Your task to perform on an android device: Do I have any events this weekend? Image 0: 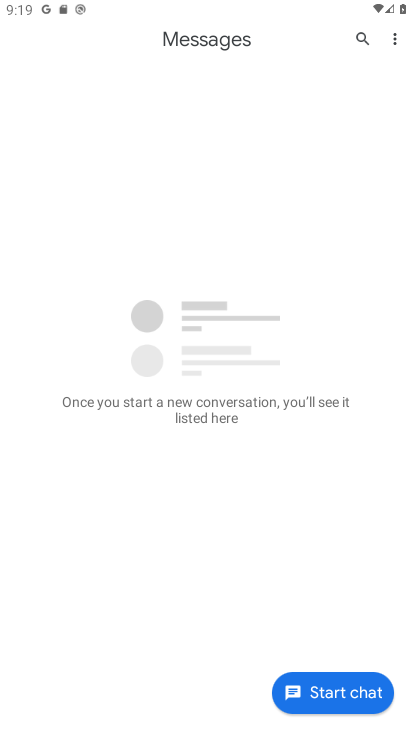
Step 0: drag from (333, 690) to (293, 81)
Your task to perform on an android device: Do I have any events this weekend? Image 1: 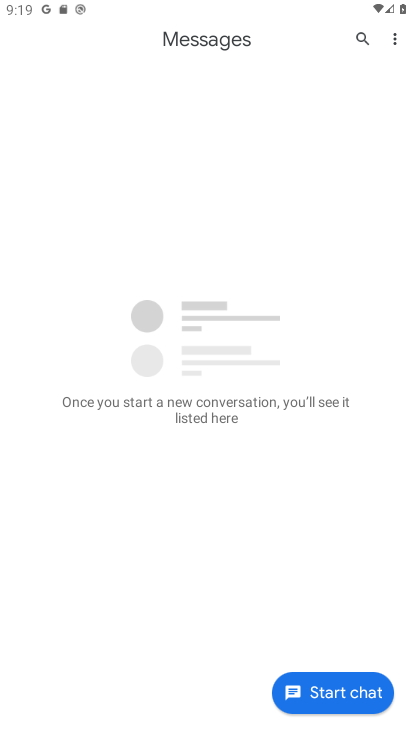
Step 1: press back button
Your task to perform on an android device: Do I have any events this weekend? Image 2: 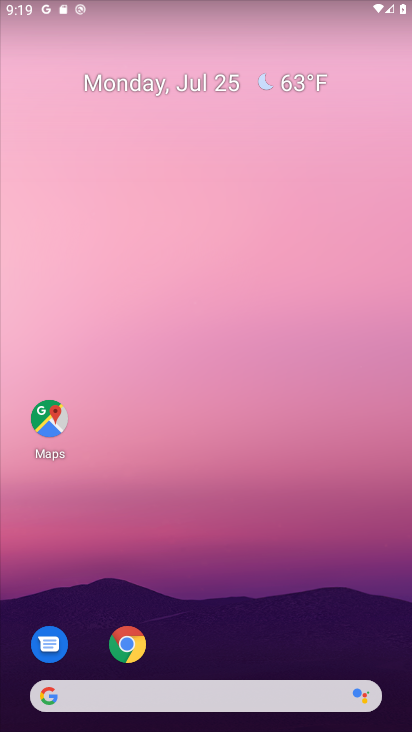
Step 2: drag from (233, 283) to (212, 126)
Your task to perform on an android device: Do I have any events this weekend? Image 3: 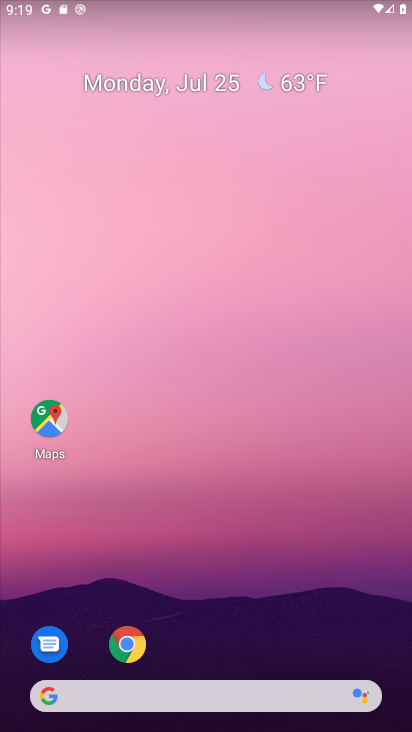
Step 3: drag from (222, 548) to (250, 63)
Your task to perform on an android device: Do I have any events this weekend? Image 4: 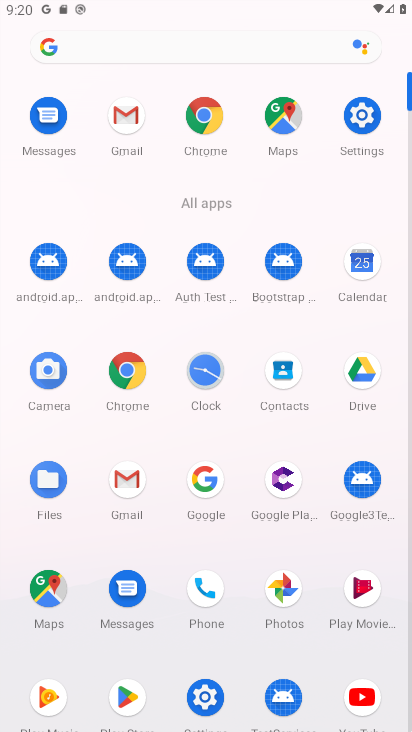
Step 4: click (356, 262)
Your task to perform on an android device: Do I have any events this weekend? Image 5: 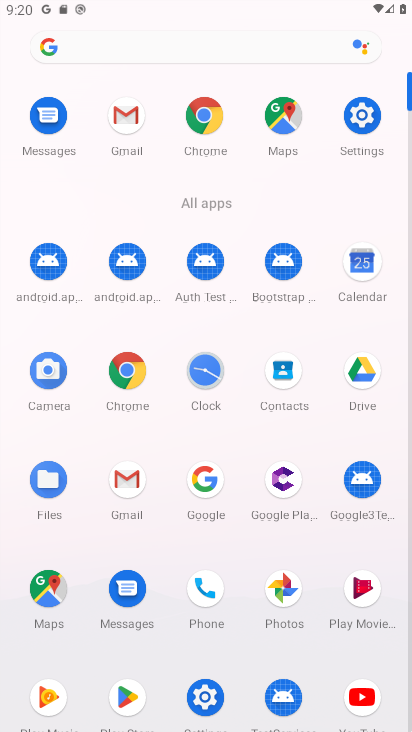
Step 5: click (355, 261)
Your task to perform on an android device: Do I have any events this weekend? Image 6: 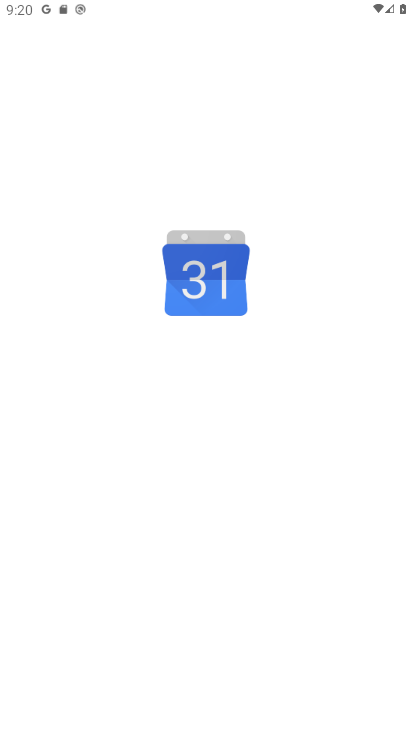
Step 6: click (346, 264)
Your task to perform on an android device: Do I have any events this weekend? Image 7: 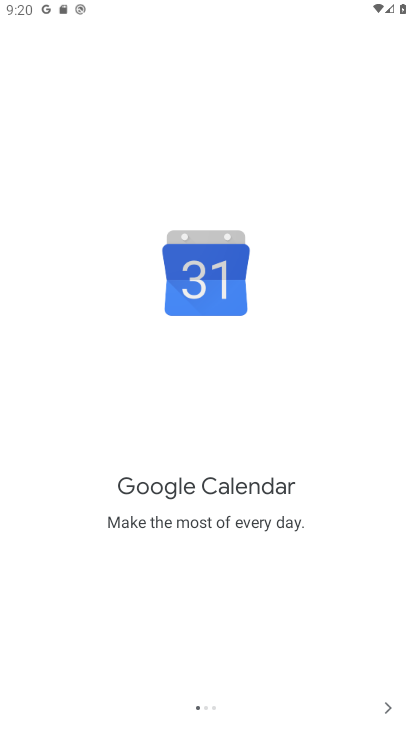
Step 7: click (398, 700)
Your task to perform on an android device: Do I have any events this weekend? Image 8: 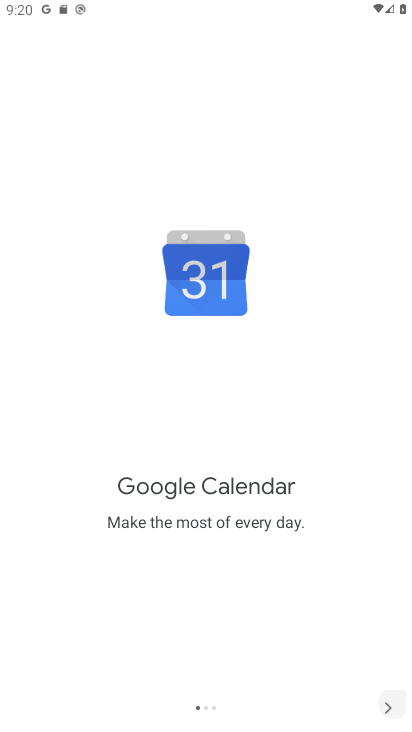
Step 8: click (390, 703)
Your task to perform on an android device: Do I have any events this weekend? Image 9: 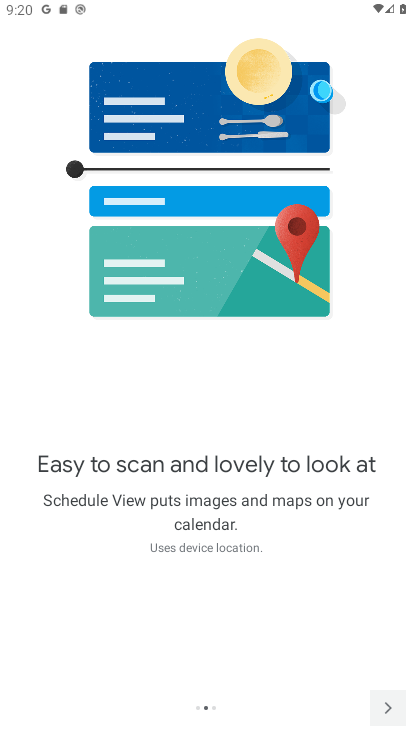
Step 9: click (387, 709)
Your task to perform on an android device: Do I have any events this weekend? Image 10: 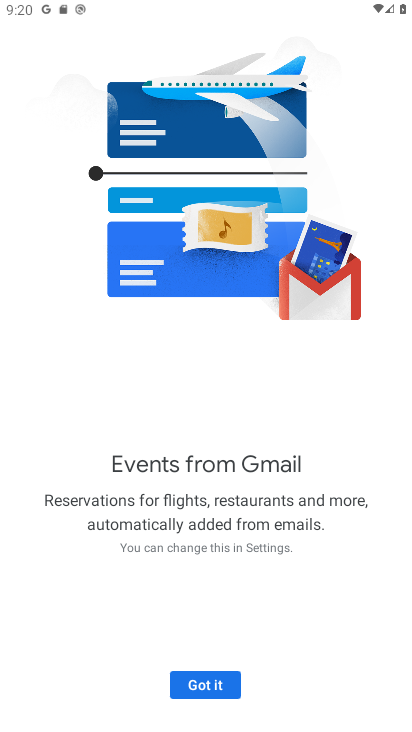
Step 10: click (210, 687)
Your task to perform on an android device: Do I have any events this weekend? Image 11: 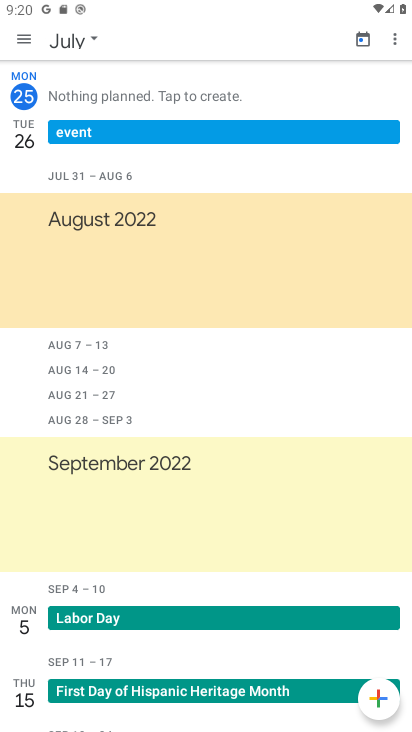
Step 11: click (97, 33)
Your task to perform on an android device: Do I have any events this weekend? Image 12: 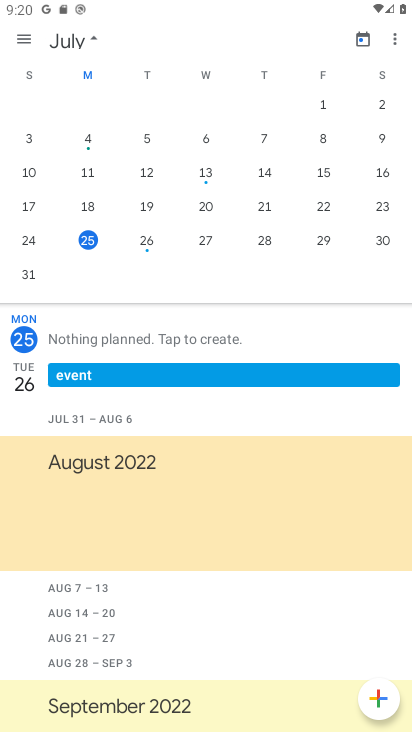
Step 12: click (332, 237)
Your task to perform on an android device: Do I have any events this weekend? Image 13: 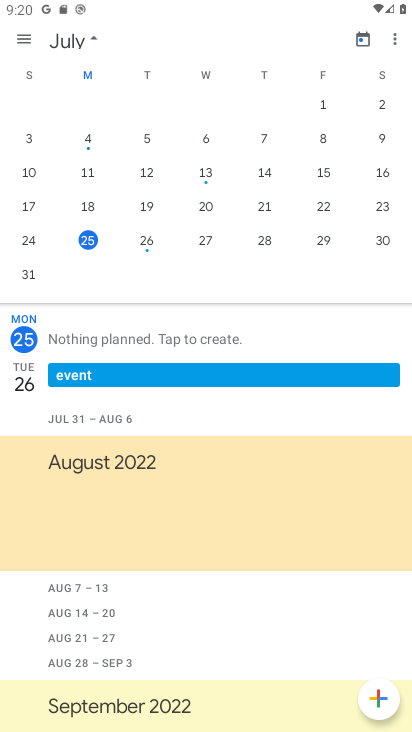
Step 13: click (330, 236)
Your task to perform on an android device: Do I have any events this weekend? Image 14: 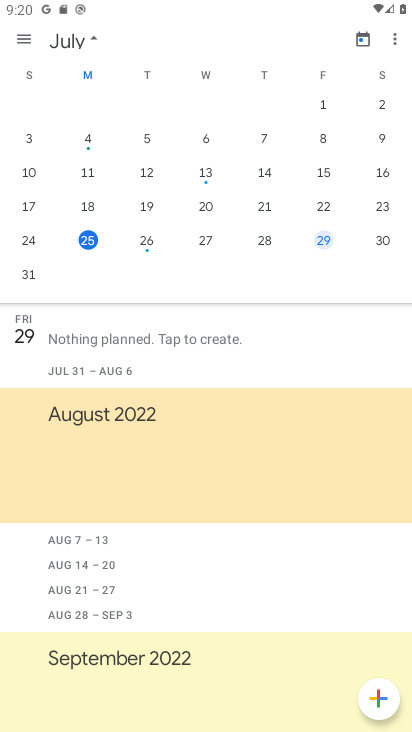
Step 14: click (330, 237)
Your task to perform on an android device: Do I have any events this weekend? Image 15: 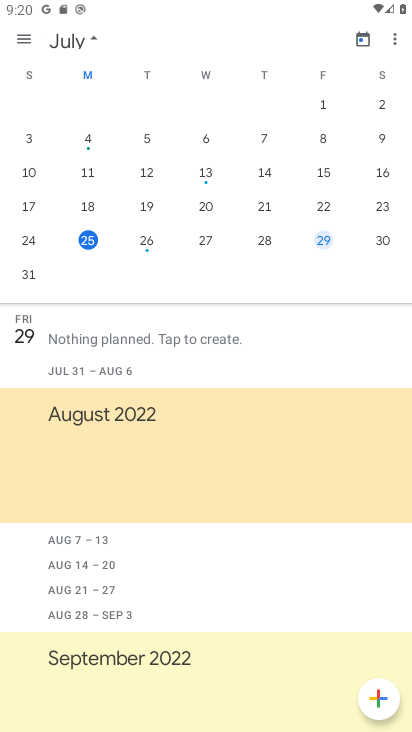
Step 15: task complete